Your task to perform on an android device: Search for "apple airpods" on ebay.com, select the first entry, add it to the cart, then select checkout. Image 0: 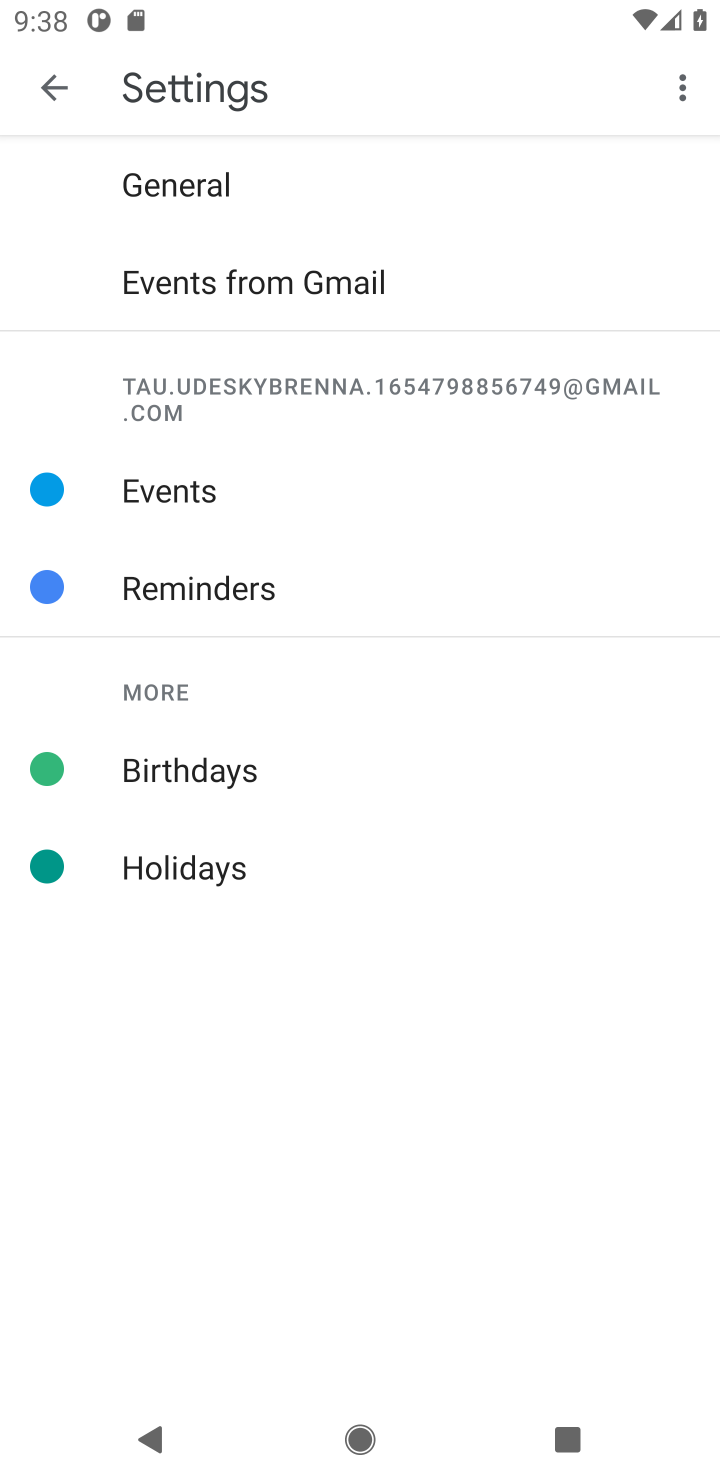
Step 0: press home button
Your task to perform on an android device: Search for "apple airpods" on ebay.com, select the first entry, add it to the cart, then select checkout. Image 1: 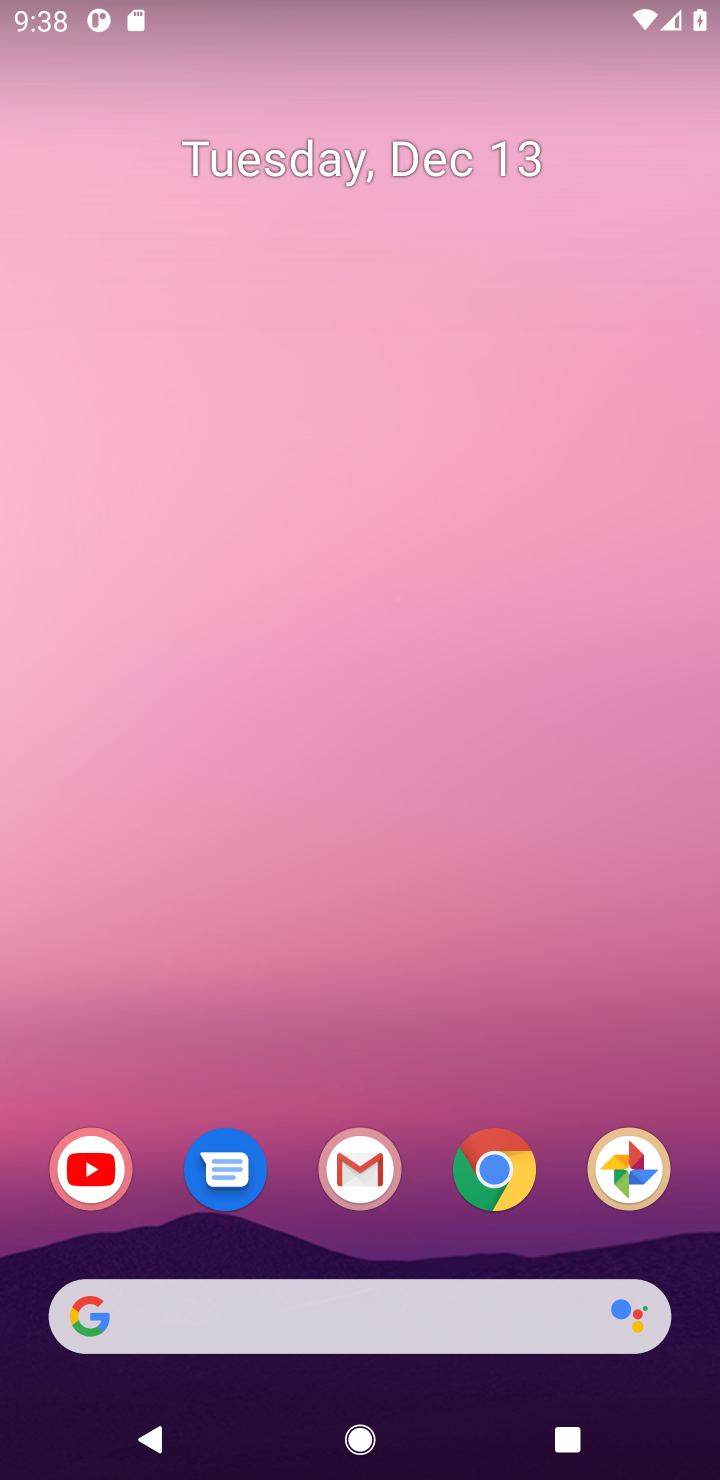
Step 1: click (499, 1194)
Your task to perform on an android device: Search for "apple airpods" on ebay.com, select the first entry, add it to the cart, then select checkout. Image 2: 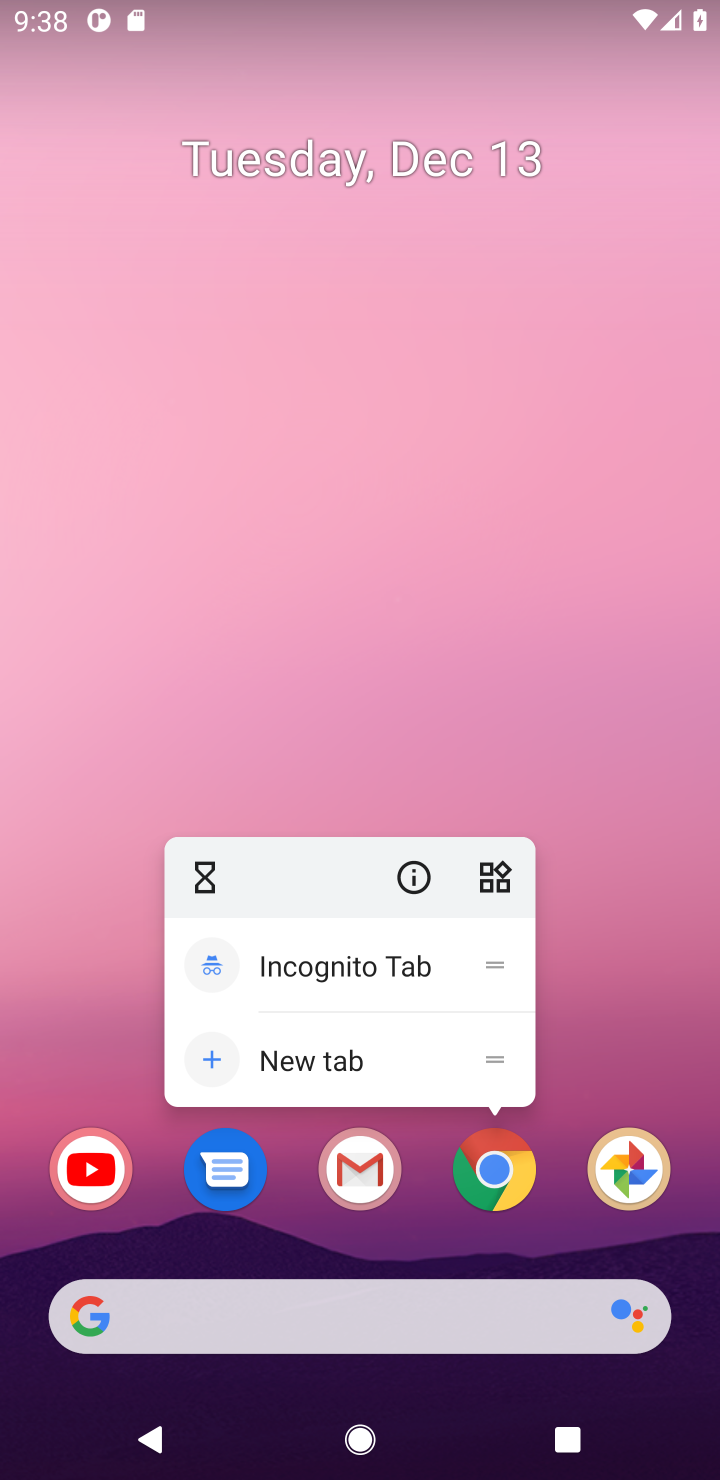
Step 2: click (499, 1194)
Your task to perform on an android device: Search for "apple airpods" on ebay.com, select the first entry, add it to the cart, then select checkout. Image 3: 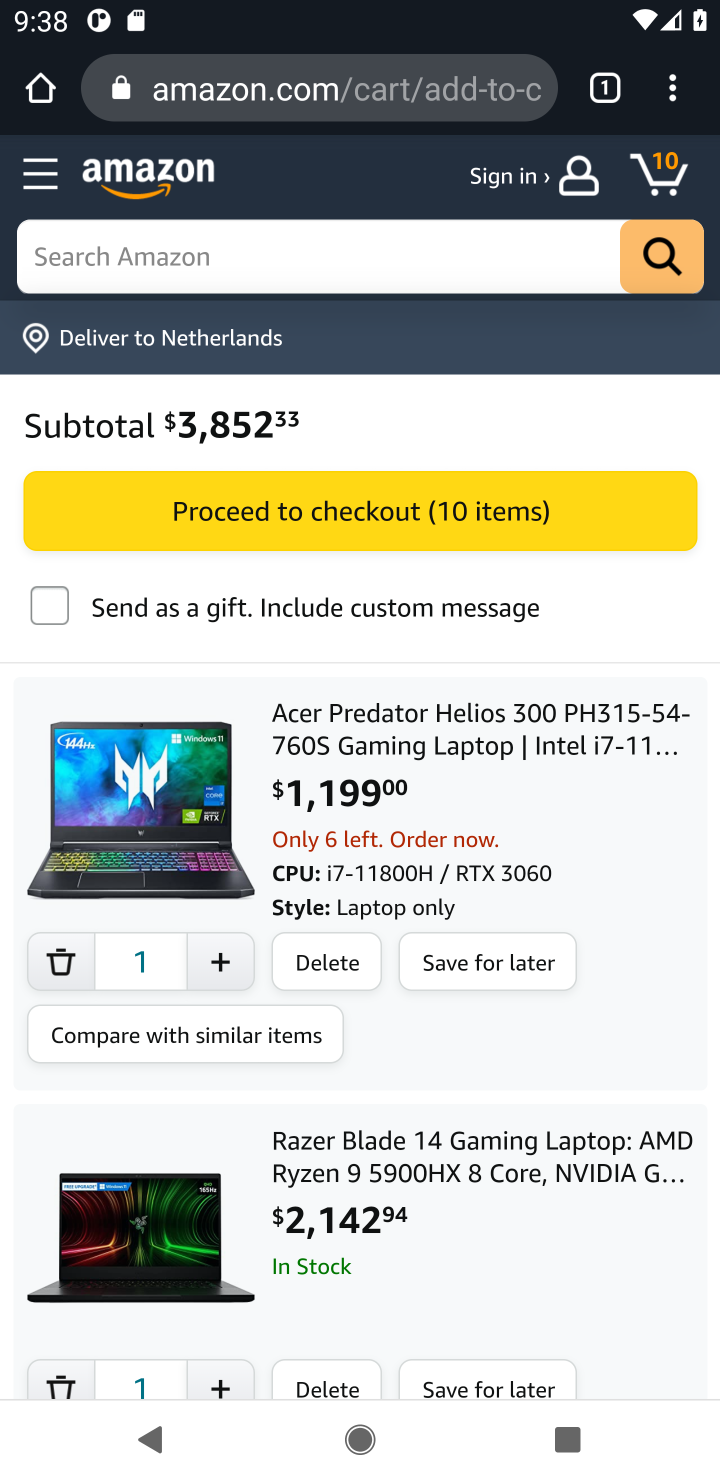
Step 3: click (237, 112)
Your task to perform on an android device: Search for "apple airpods" on ebay.com, select the first entry, add it to the cart, then select checkout. Image 4: 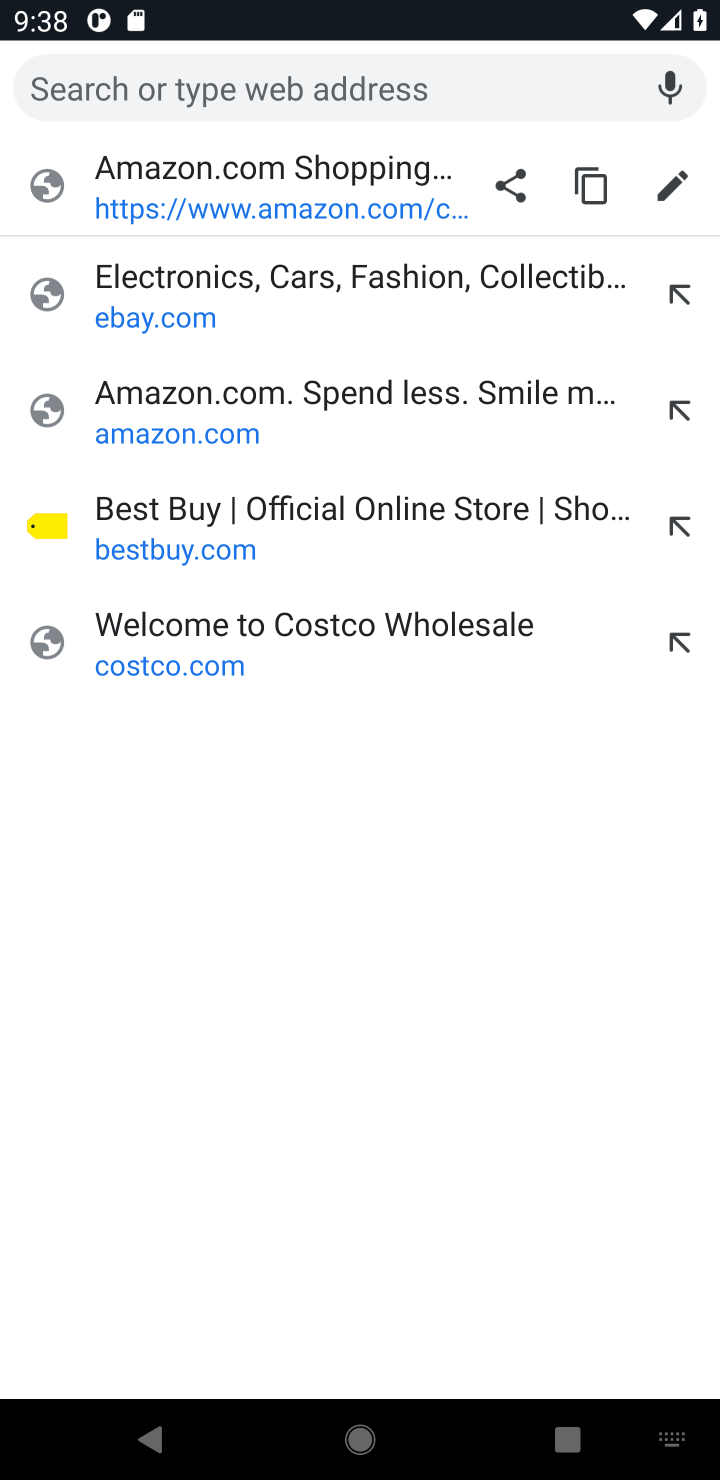
Step 4: type "ebay"
Your task to perform on an android device: Search for "apple airpods" on ebay.com, select the first entry, add it to the cart, then select checkout. Image 5: 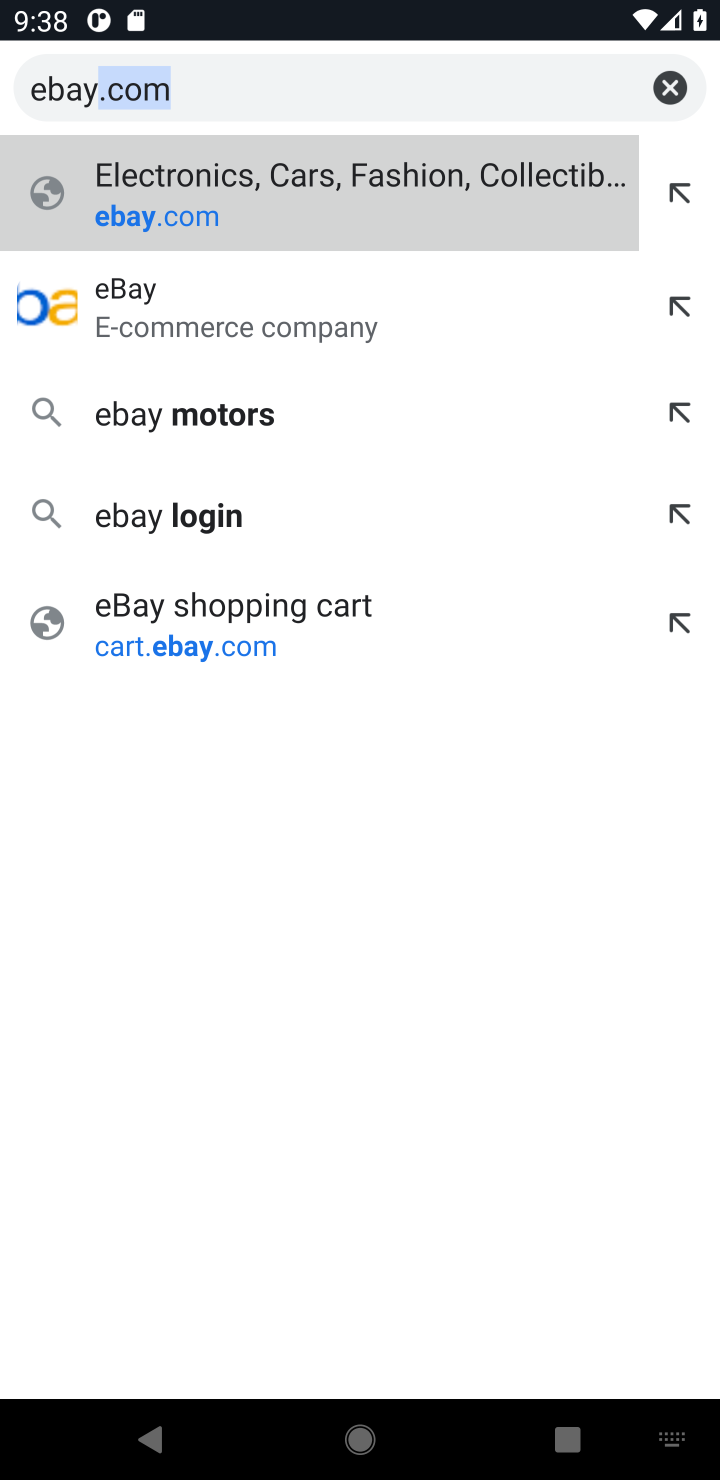
Step 5: click (153, 184)
Your task to perform on an android device: Search for "apple airpods" on ebay.com, select the first entry, add it to the cart, then select checkout. Image 6: 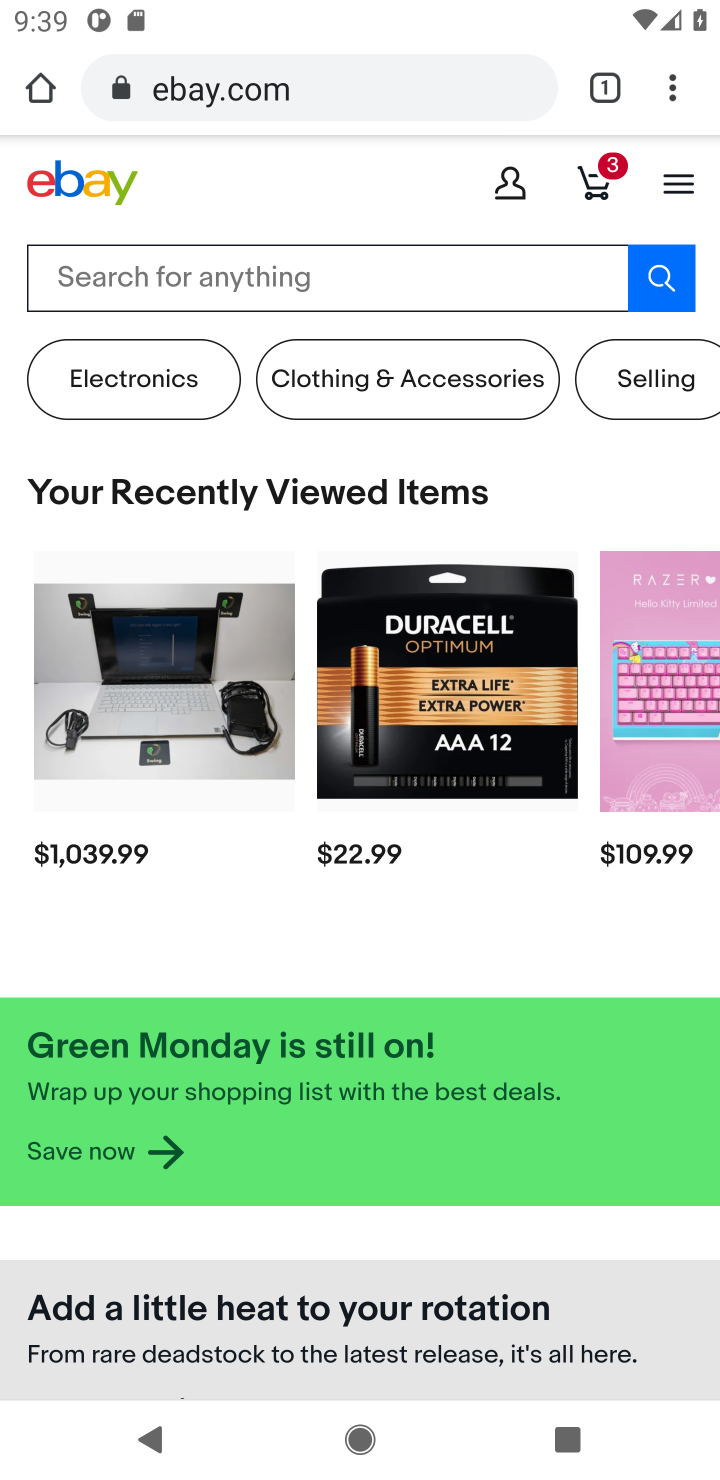
Step 6: click (234, 264)
Your task to perform on an android device: Search for "apple airpods" on ebay.com, select the first entry, add it to the cart, then select checkout. Image 7: 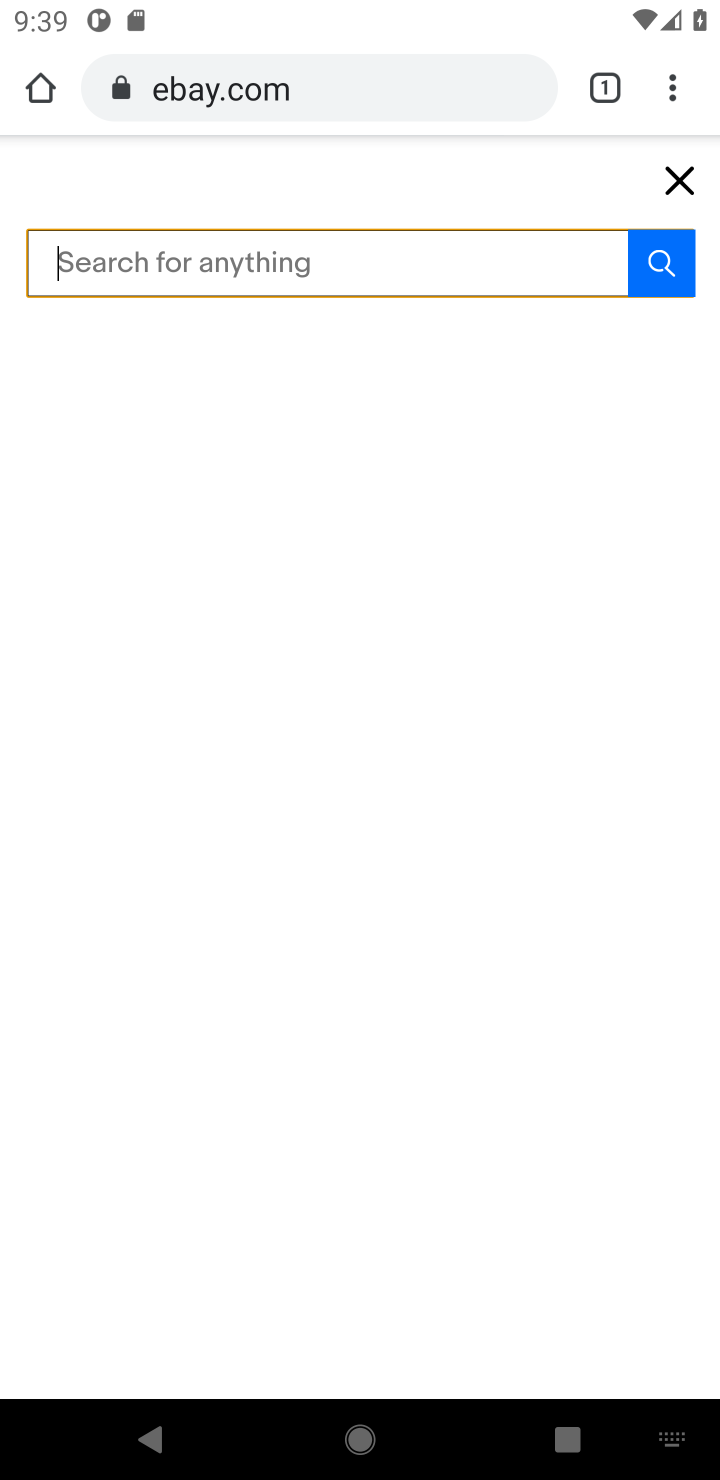
Step 7: type "apple airpod"
Your task to perform on an android device: Search for "apple airpods" on ebay.com, select the first entry, add it to the cart, then select checkout. Image 8: 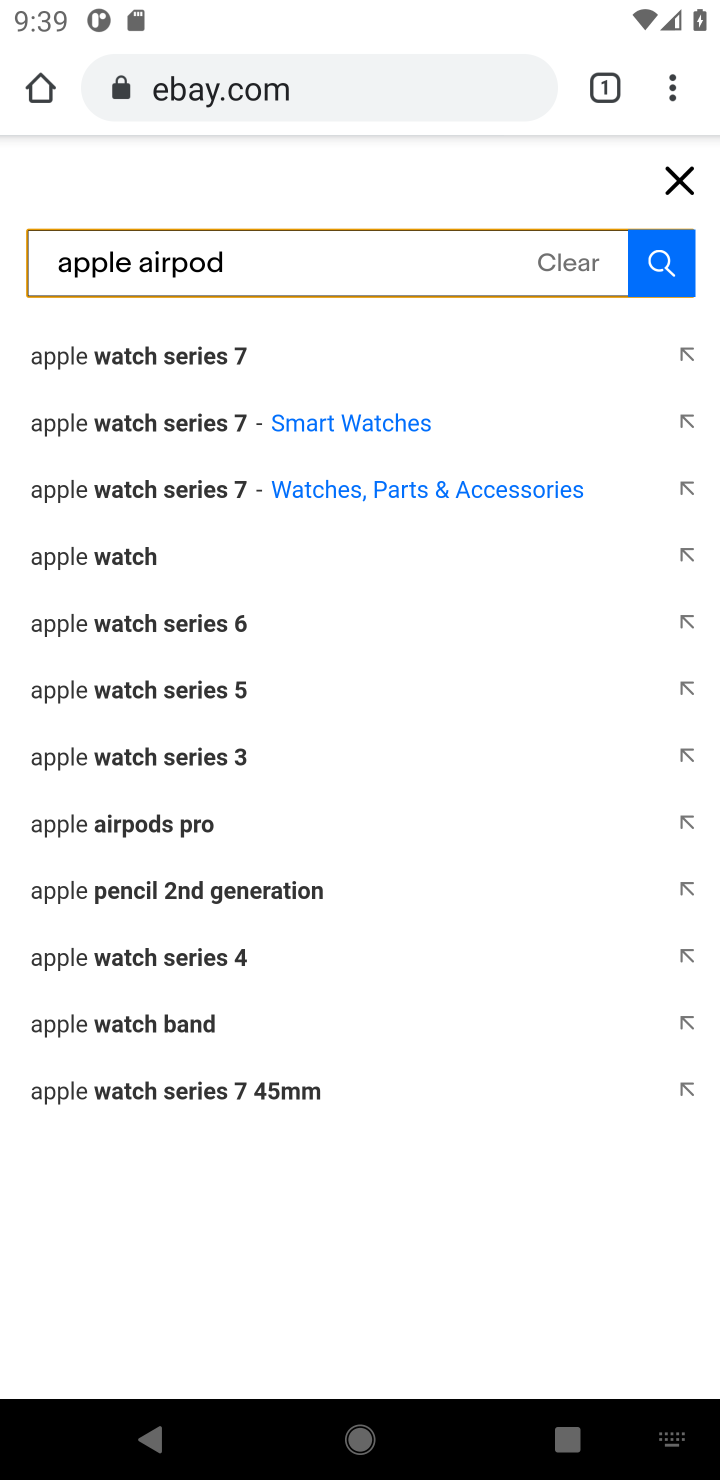
Step 8: click (676, 272)
Your task to perform on an android device: Search for "apple airpods" on ebay.com, select the first entry, add it to the cart, then select checkout. Image 9: 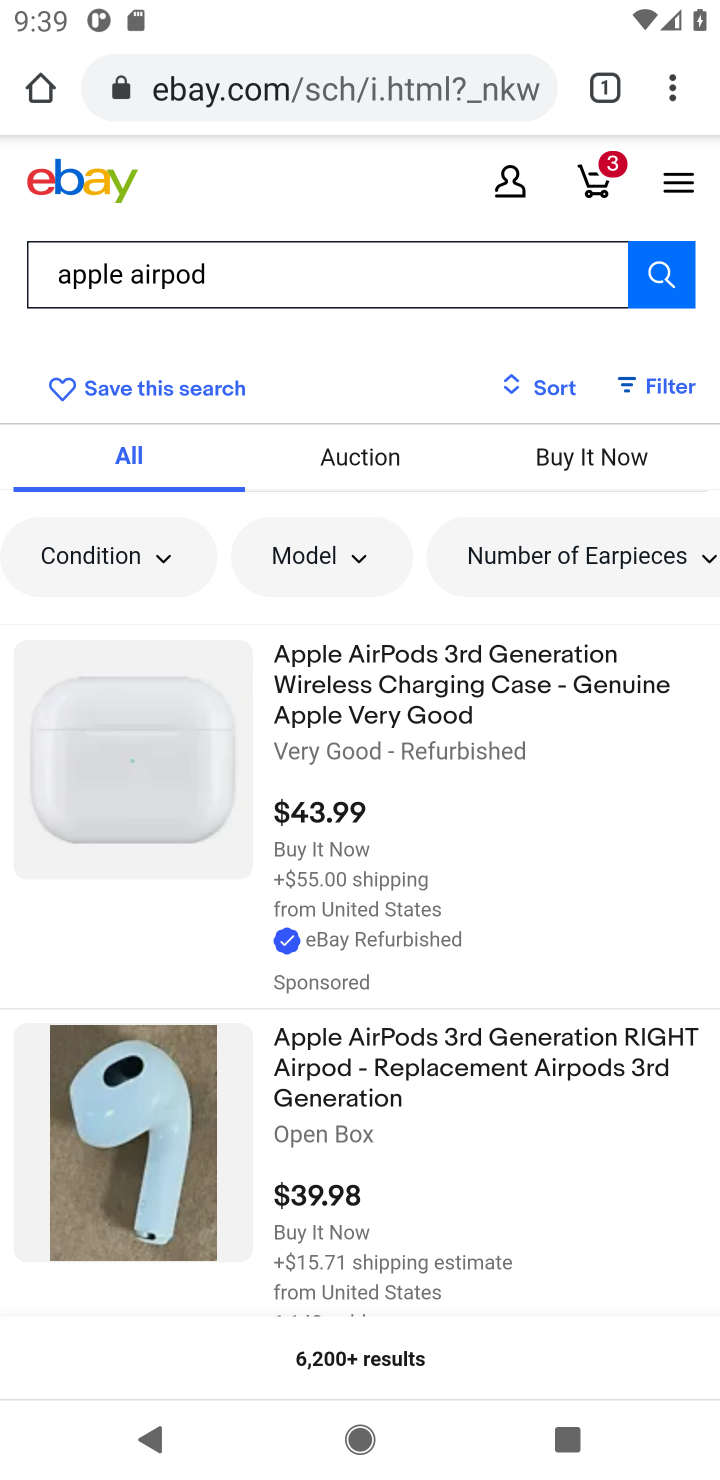
Step 9: click (500, 672)
Your task to perform on an android device: Search for "apple airpods" on ebay.com, select the first entry, add it to the cart, then select checkout. Image 10: 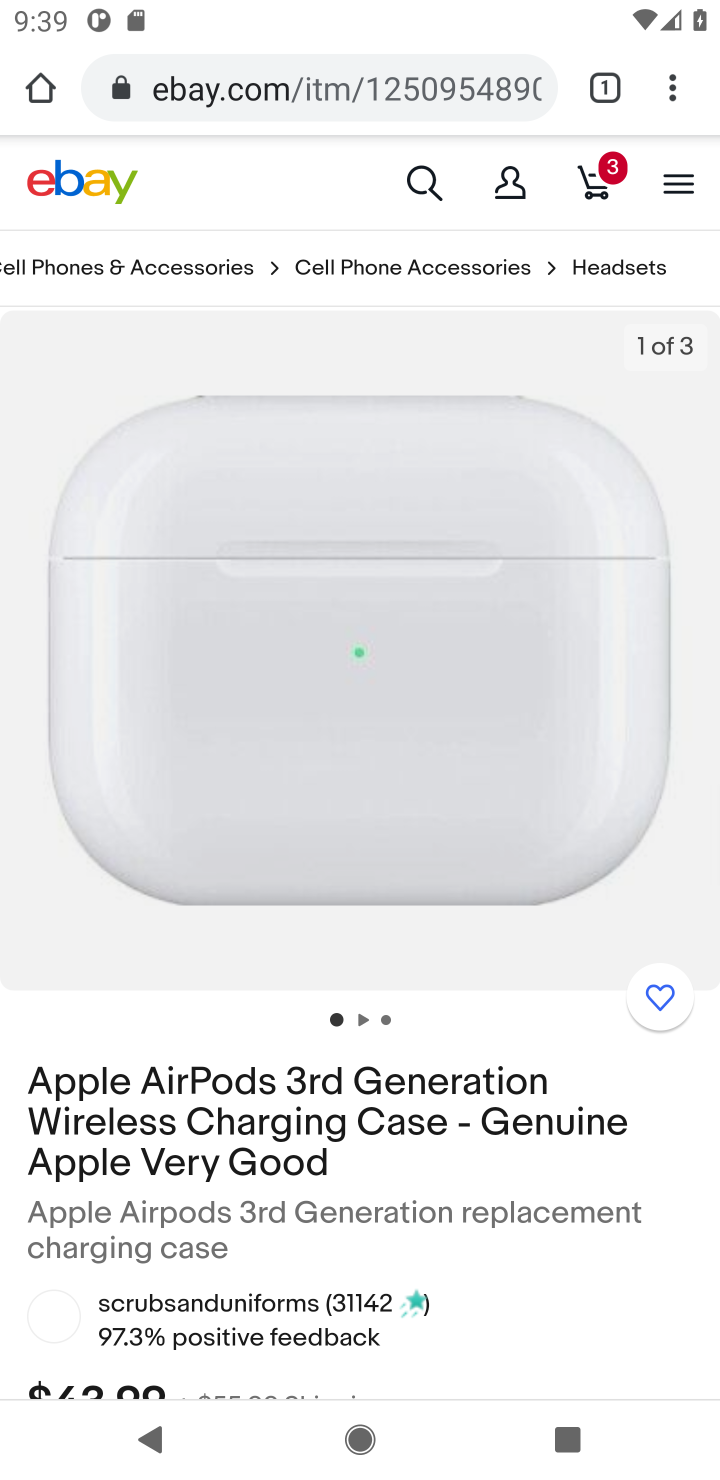
Step 10: drag from (573, 1260) to (469, 647)
Your task to perform on an android device: Search for "apple airpods" on ebay.com, select the first entry, add it to the cart, then select checkout. Image 11: 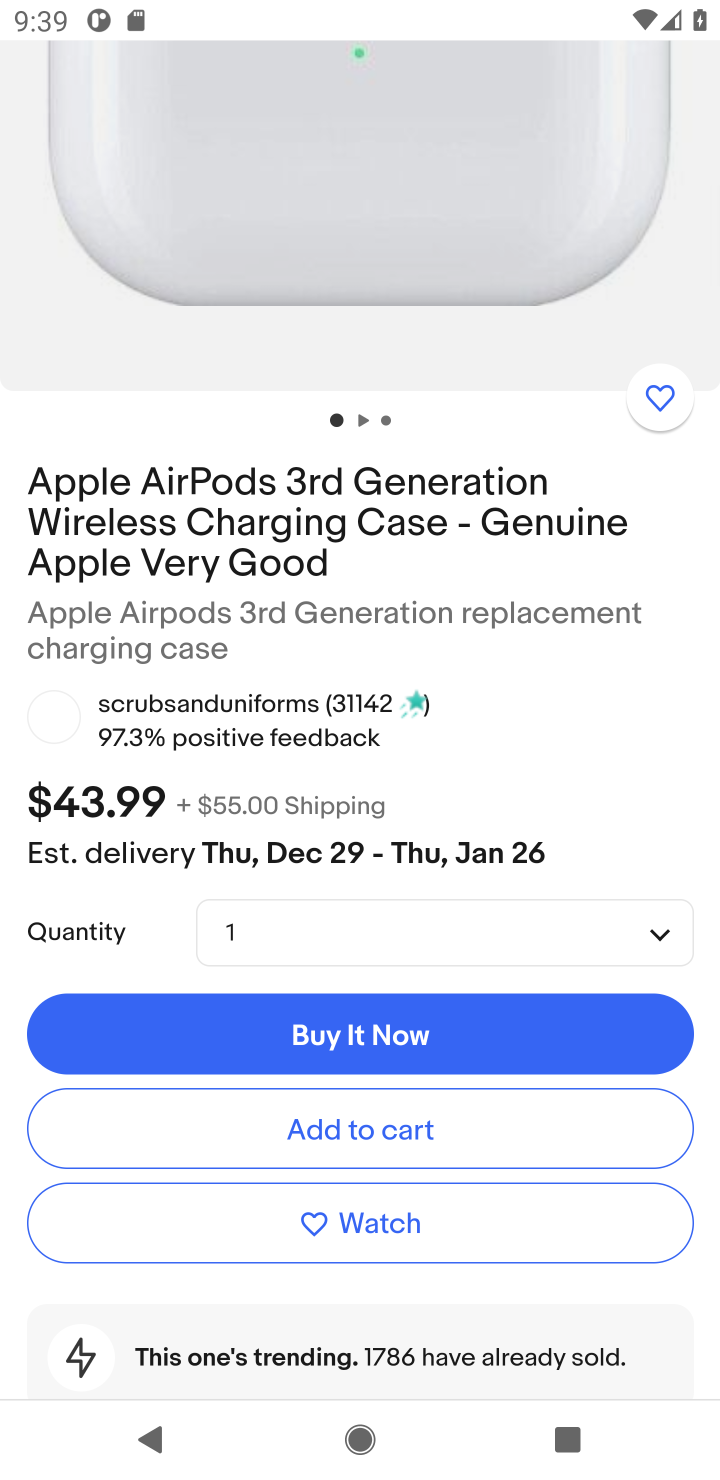
Step 11: click (539, 1136)
Your task to perform on an android device: Search for "apple airpods" on ebay.com, select the first entry, add it to the cart, then select checkout. Image 12: 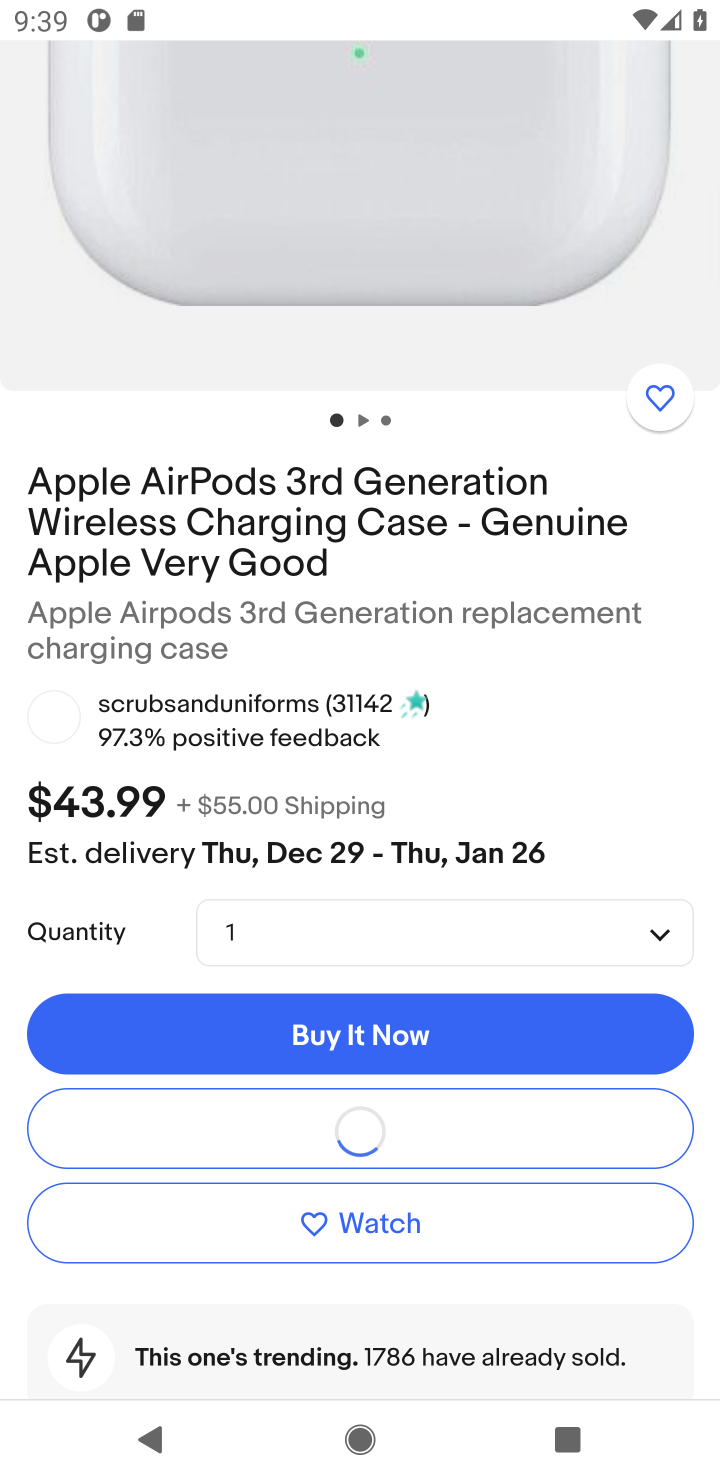
Step 12: task complete